Your task to perform on an android device: open chrome and create a bookmark for the current page Image 0: 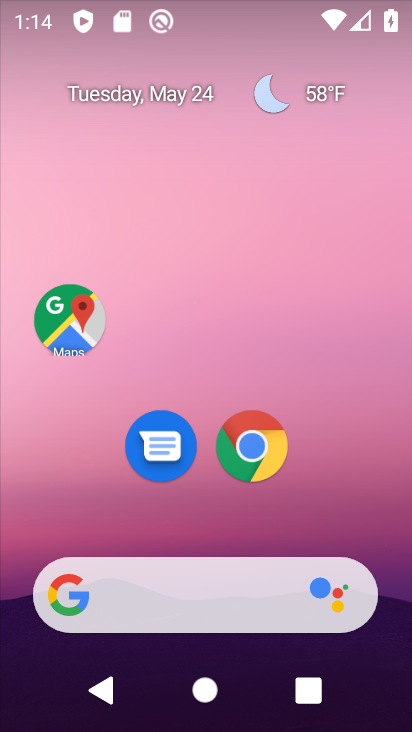
Step 0: drag from (197, 557) to (263, 30)
Your task to perform on an android device: open chrome and create a bookmark for the current page Image 1: 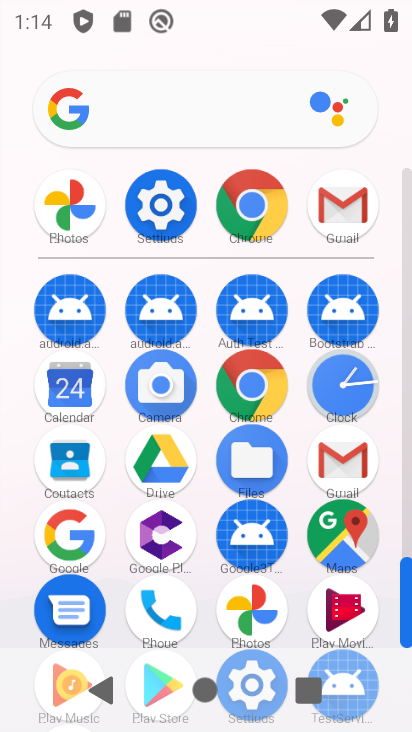
Step 1: click (256, 210)
Your task to perform on an android device: open chrome and create a bookmark for the current page Image 2: 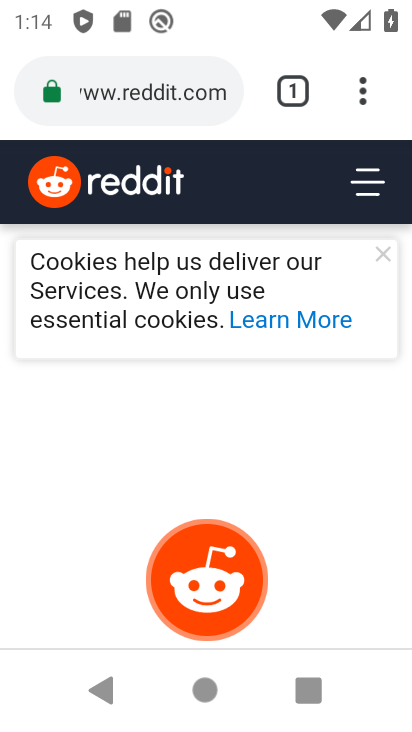
Step 2: click (365, 93)
Your task to perform on an android device: open chrome and create a bookmark for the current page Image 3: 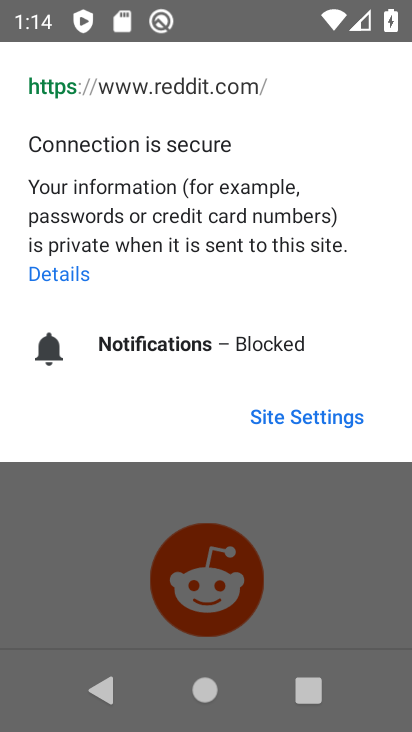
Step 3: click (121, 558)
Your task to perform on an android device: open chrome and create a bookmark for the current page Image 4: 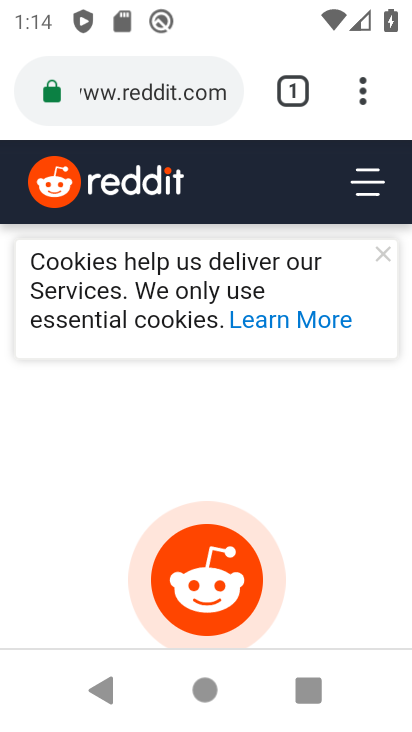
Step 4: click (379, 97)
Your task to perform on an android device: open chrome and create a bookmark for the current page Image 5: 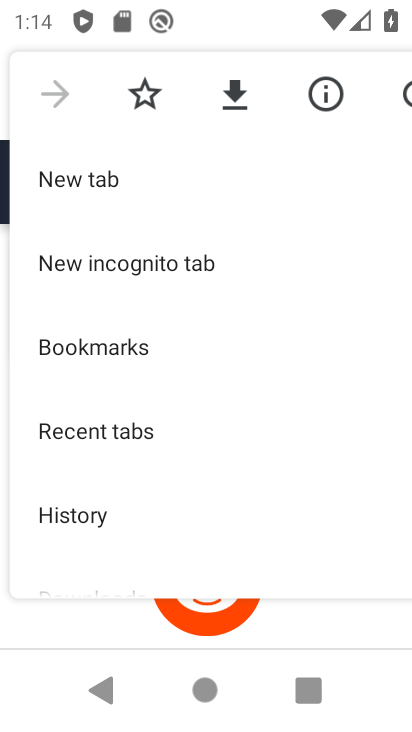
Step 5: click (151, 101)
Your task to perform on an android device: open chrome and create a bookmark for the current page Image 6: 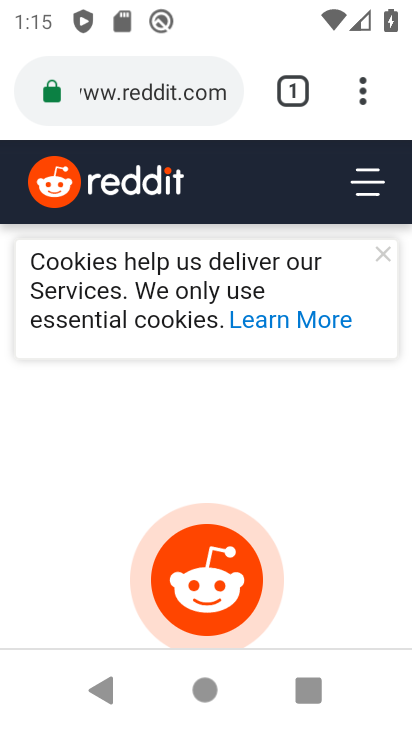
Step 6: task complete